Your task to perform on an android device: Open settings on Google Maps Image 0: 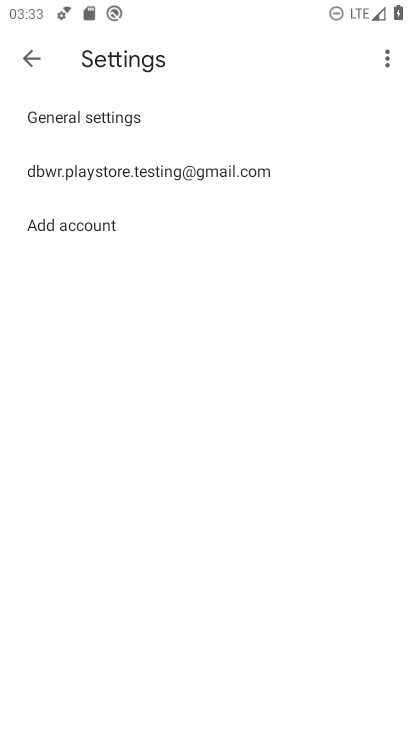
Step 0: press home button
Your task to perform on an android device: Open settings on Google Maps Image 1: 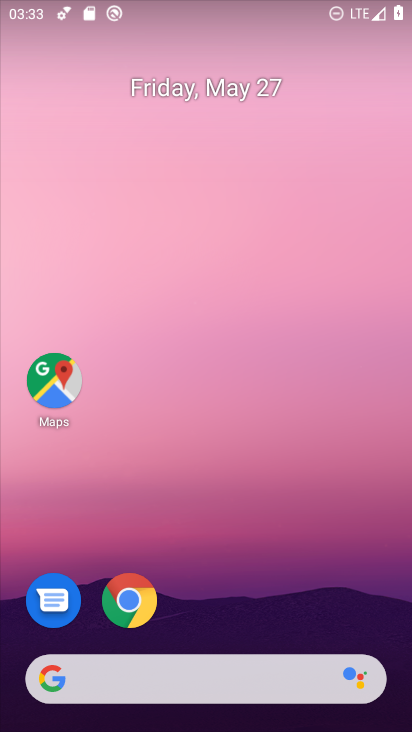
Step 1: drag from (222, 716) to (222, 204)
Your task to perform on an android device: Open settings on Google Maps Image 2: 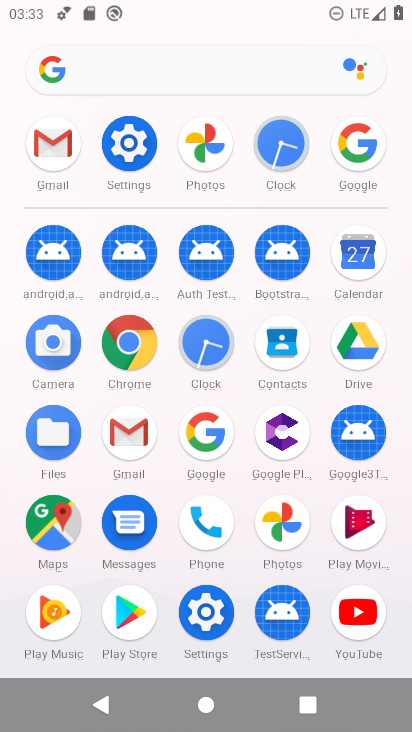
Step 2: click (44, 524)
Your task to perform on an android device: Open settings on Google Maps Image 3: 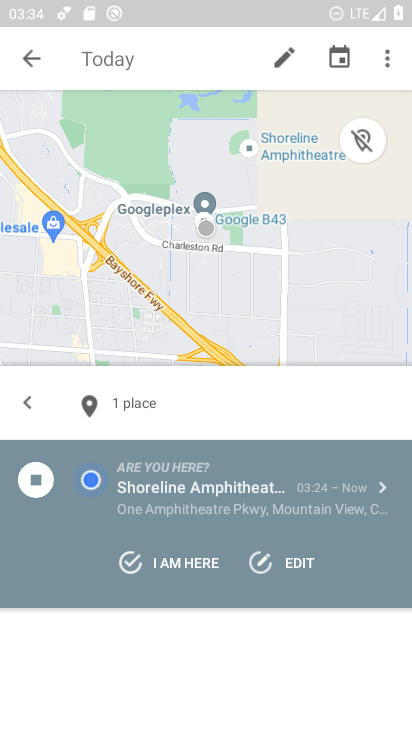
Step 3: click (35, 56)
Your task to perform on an android device: Open settings on Google Maps Image 4: 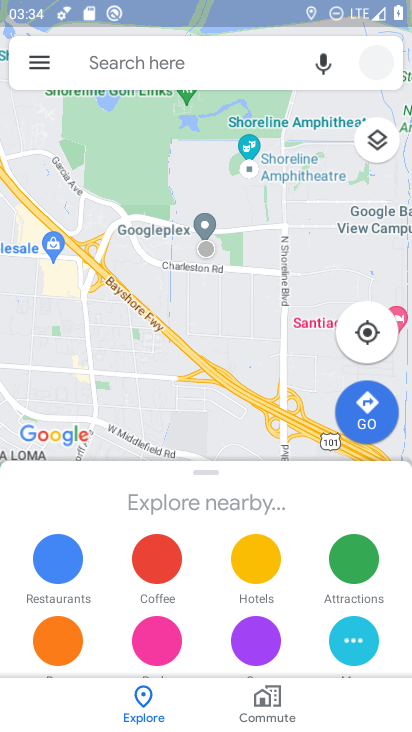
Step 4: click (38, 57)
Your task to perform on an android device: Open settings on Google Maps Image 5: 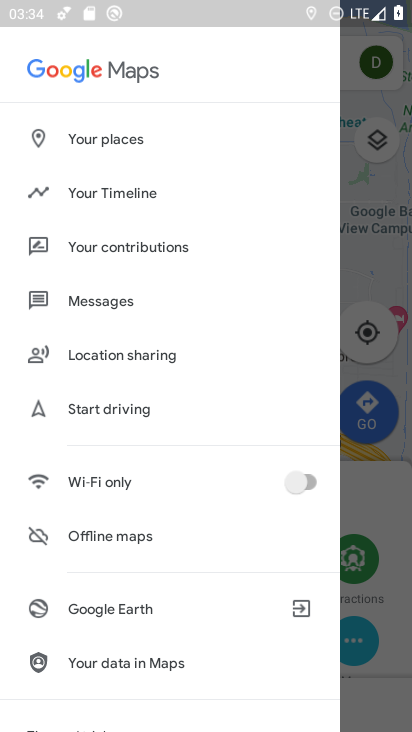
Step 5: drag from (116, 633) to (104, 248)
Your task to perform on an android device: Open settings on Google Maps Image 6: 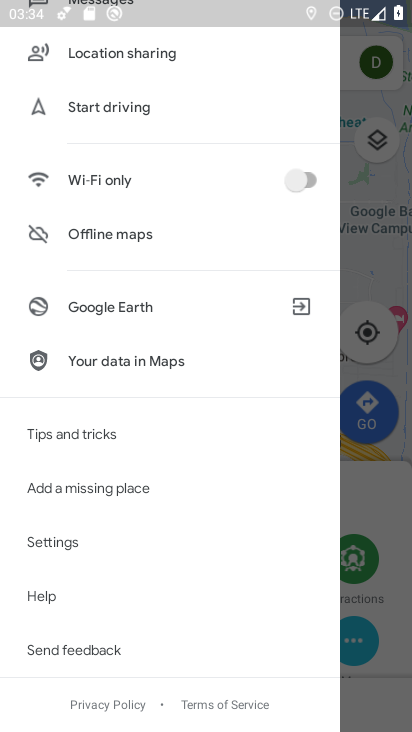
Step 6: click (54, 537)
Your task to perform on an android device: Open settings on Google Maps Image 7: 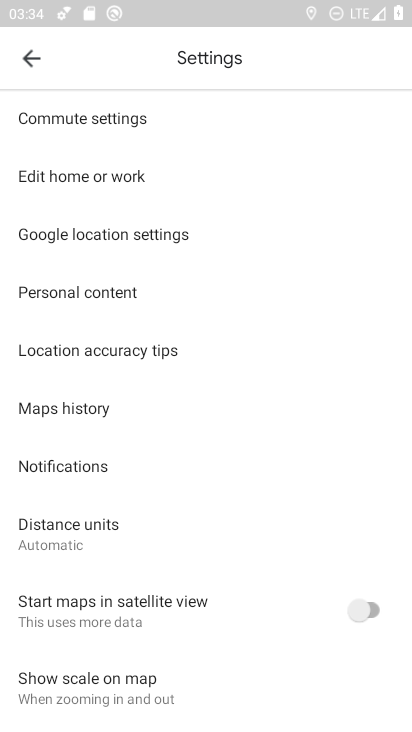
Step 7: task complete